Your task to perform on an android device: What's the weather today? Image 0: 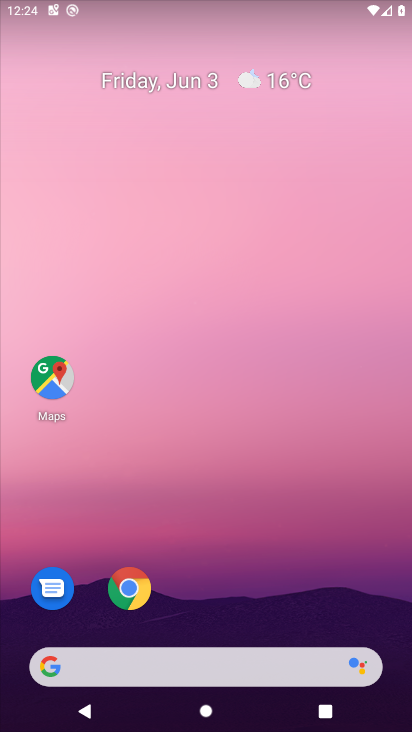
Step 0: click (249, 3)
Your task to perform on an android device: What's the weather today? Image 1: 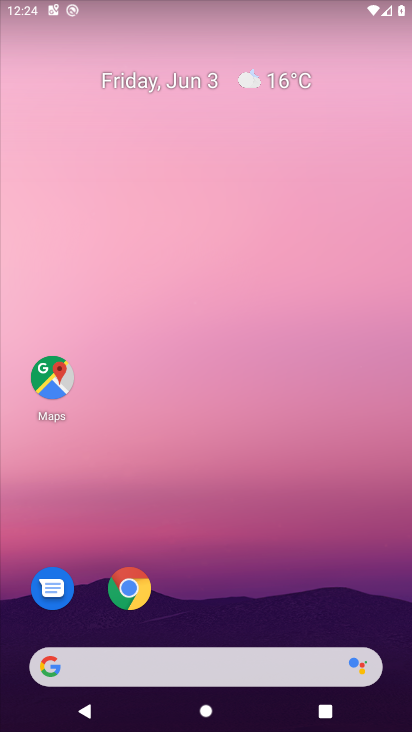
Step 1: drag from (192, 594) to (179, 0)
Your task to perform on an android device: What's the weather today? Image 2: 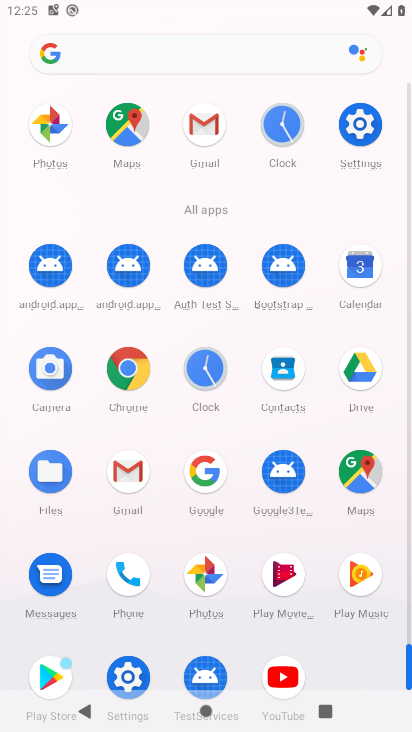
Step 2: click (142, 50)
Your task to perform on an android device: What's the weather today? Image 3: 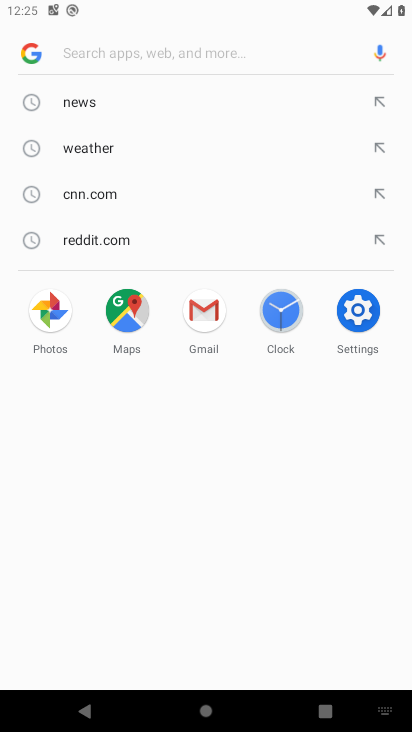
Step 3: type "weather today"
Your task to perform on an android device: What's the weather today? Image 4: 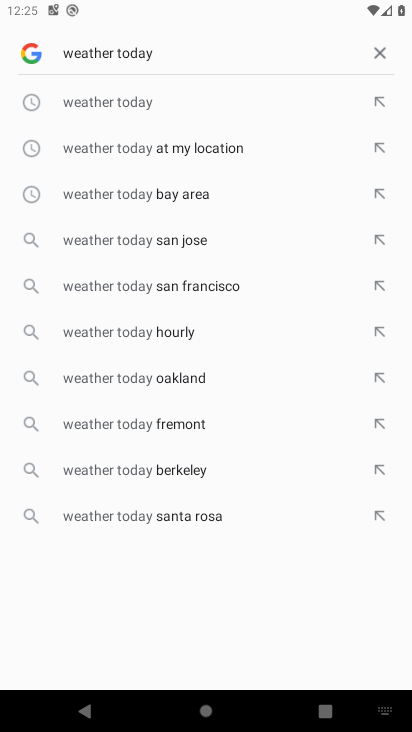
Step 4: click (95, 108)
Your task to perform on an android device: What's the weather today? Image 5: 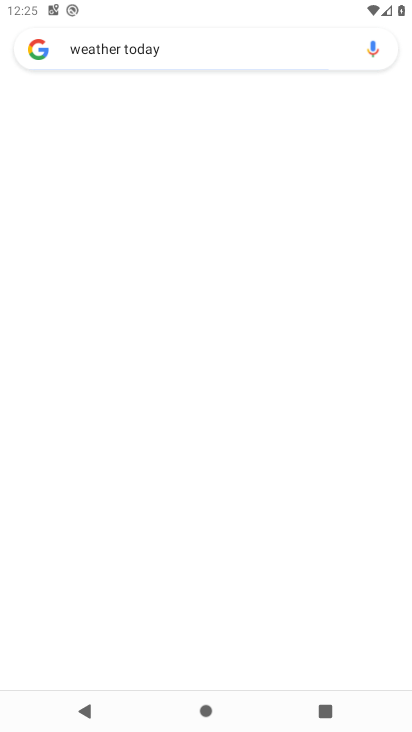
Step 5: task complete